Your task to perform on an android device: open app "Mercado Libre" Image 0: 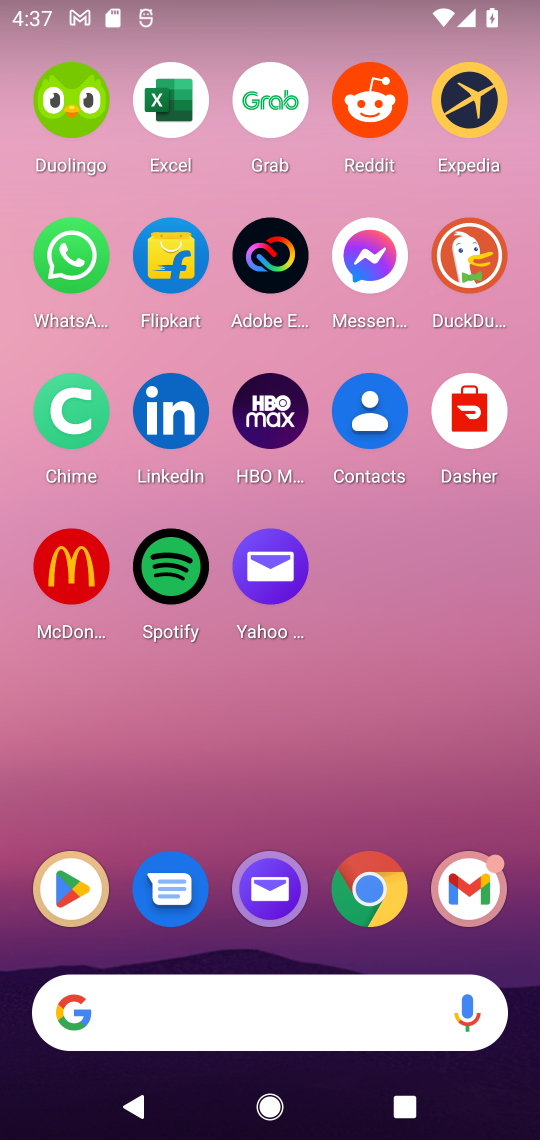
Step 0: press home button
Your task to perform on an android device: open app "Mercado Libre" Image 1: 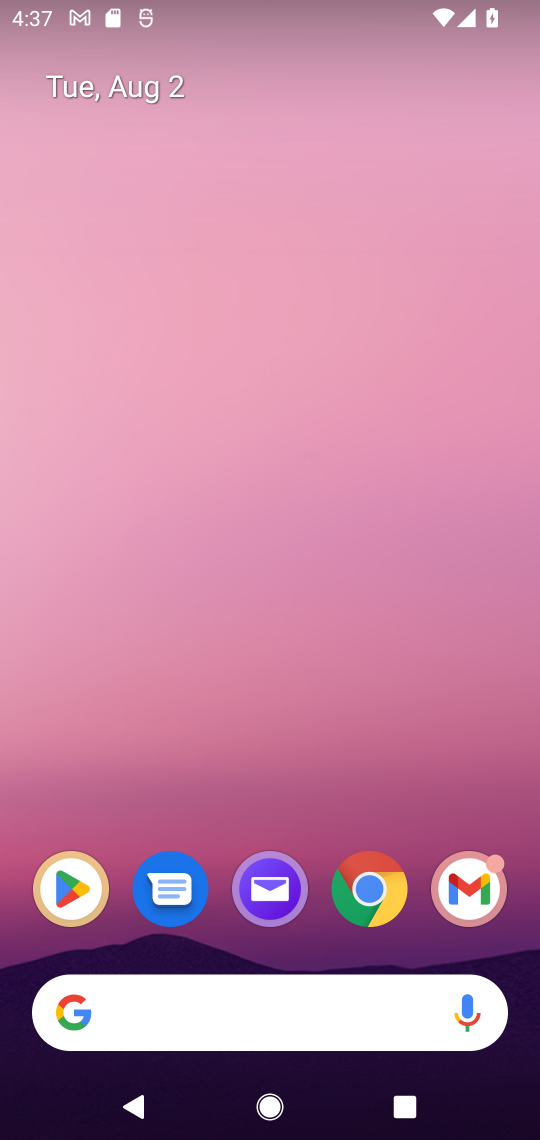
Step 1: drag from (403, 718) to (365, 38)
Your task to perform on an android device: open app "Mercado Libre" Image 2: 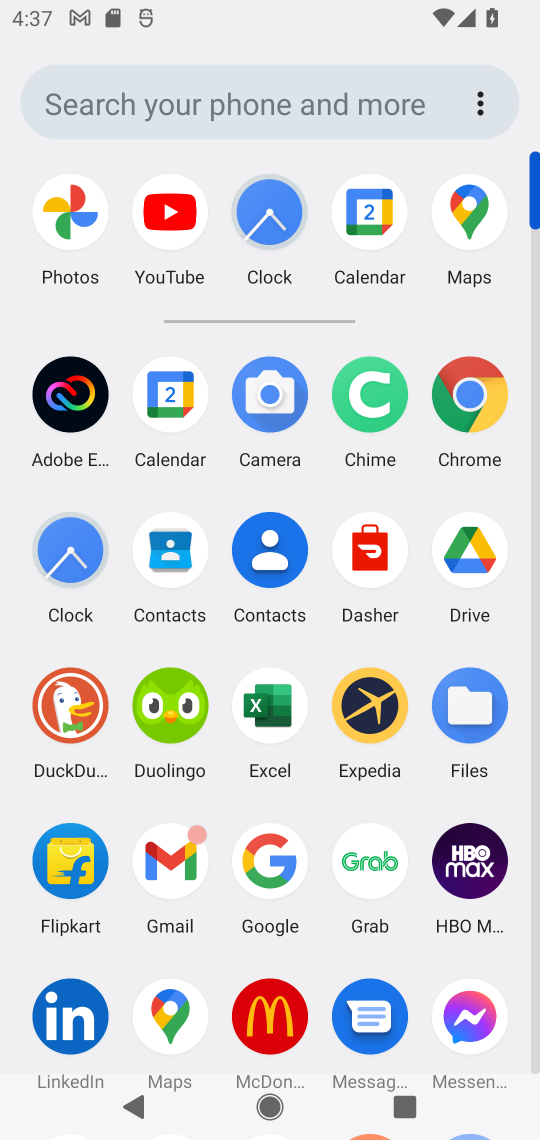
Step 2: drag from (501, 953) to (531, 413)
Your task to perform on an android device: open app "Mercado Libre" Image 3: 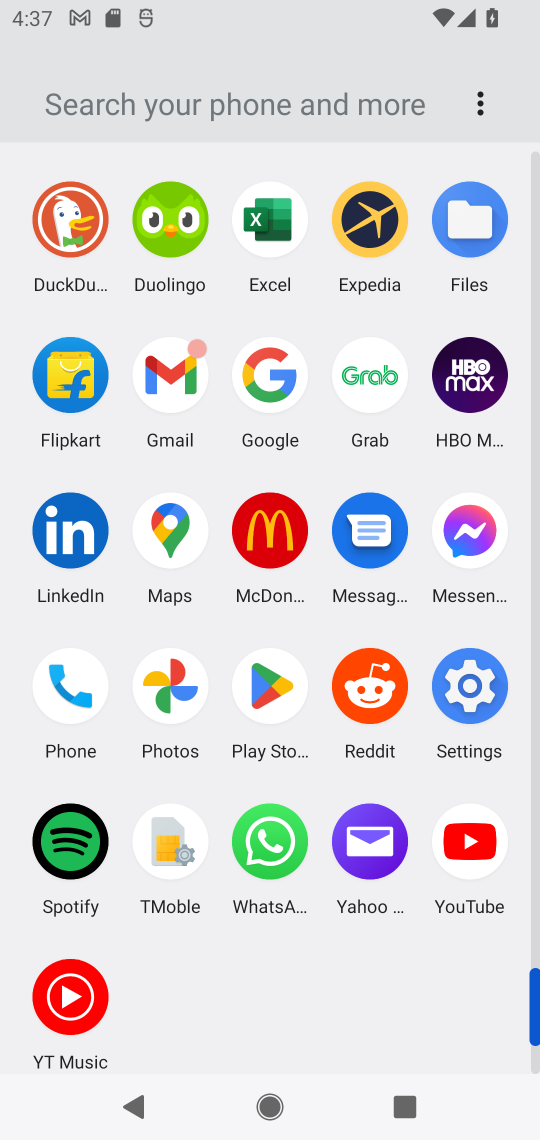
Step 3: click (267, 671)
Your task to perform on an android device: open app "Mercado Libre" Image 4: 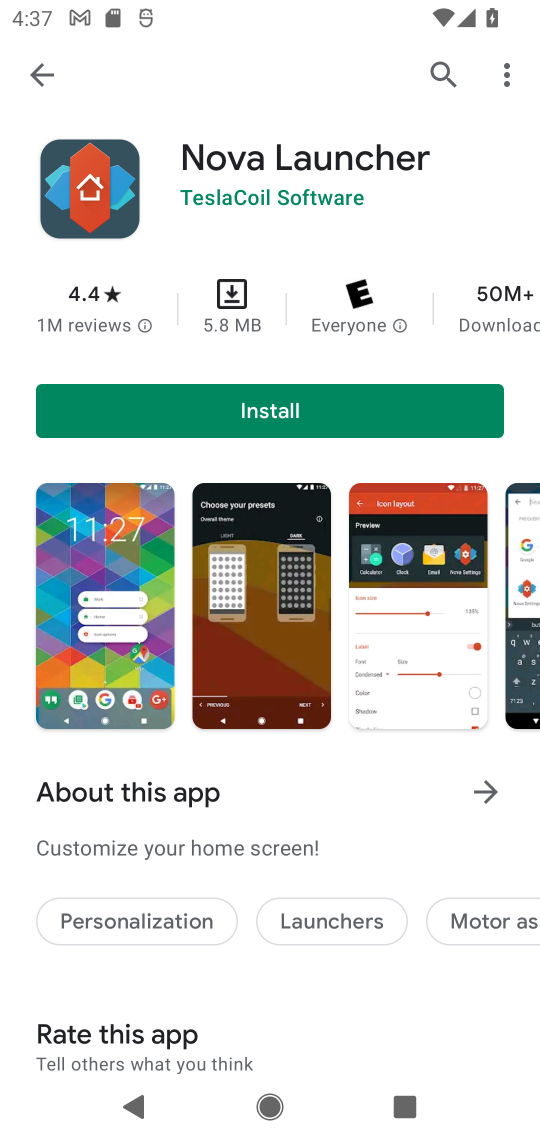
Step 4: click (443, 65)
Your task to perform on an android device: open app "Mercado Libre" Image 5: 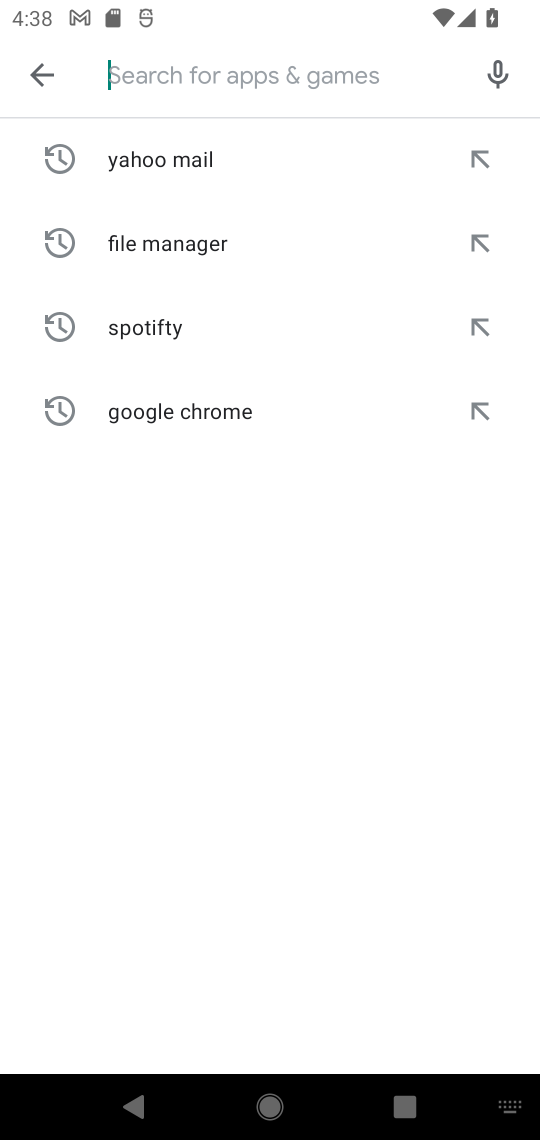
Step 5: click (290, 77)
Your task to perform on an android device: open app "Mercado Libre" Image 6: 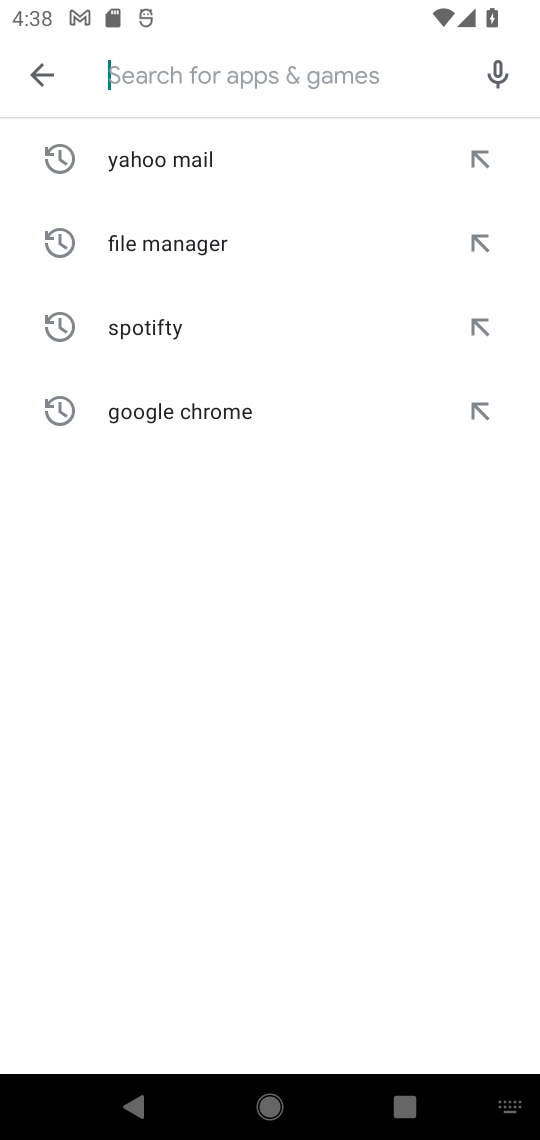
Step 6: type "mercado"
Your task to perform on an android device: open app "Mercado Libre" Image 7: 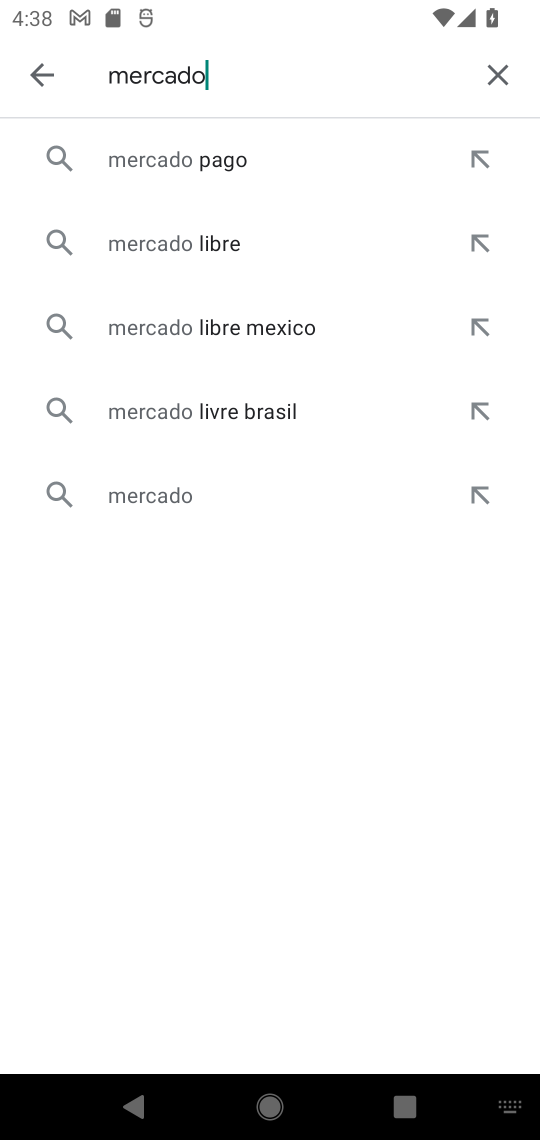
Step 7: click (242, 250)
Your task to perform on an android device: open app "Mercado Libre" Image 8: 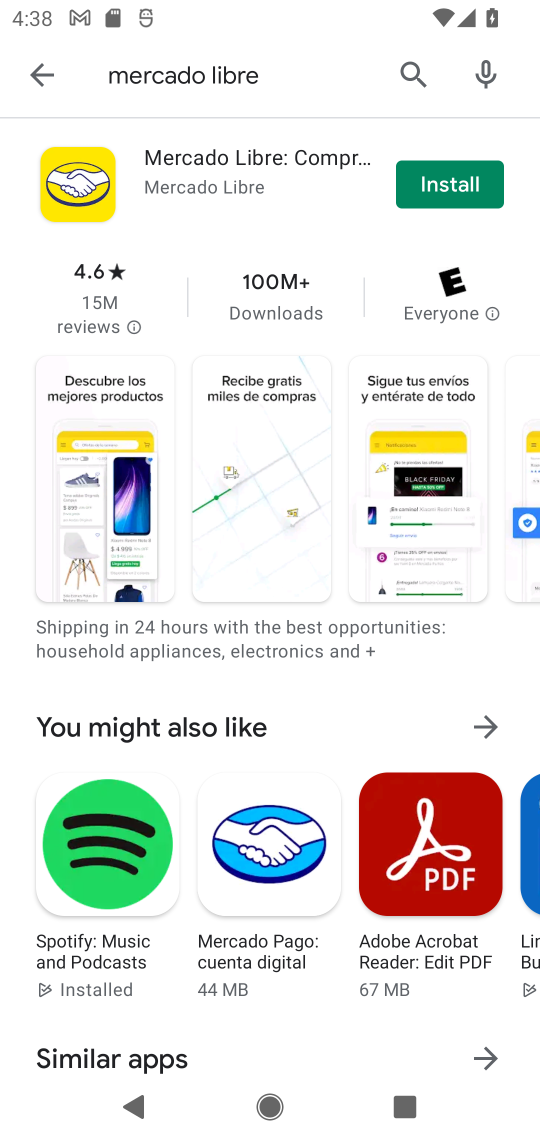
Step 8: task complete